Your task to perform on an android device: Go to Google Image 0: 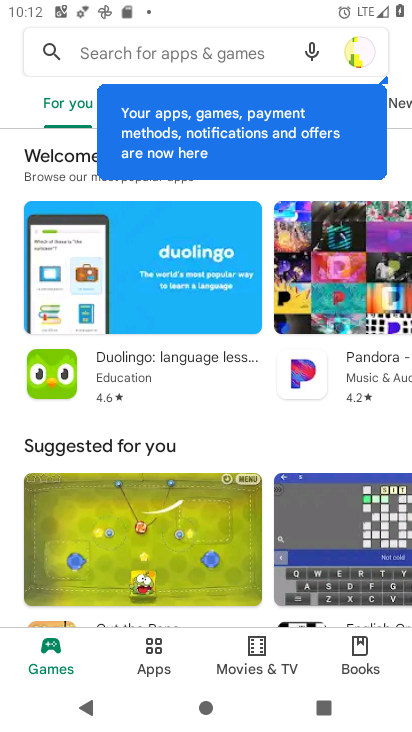
Step 0: press home button
Your task to perform on an android device: Go to Google Image 1: 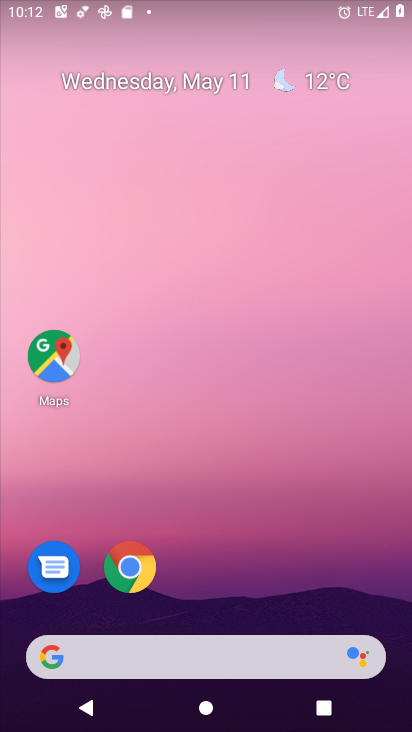
Step 1: drag from (214, 549) to (187, 102)
Your task to perform on an android device: Go to Google Image 2: 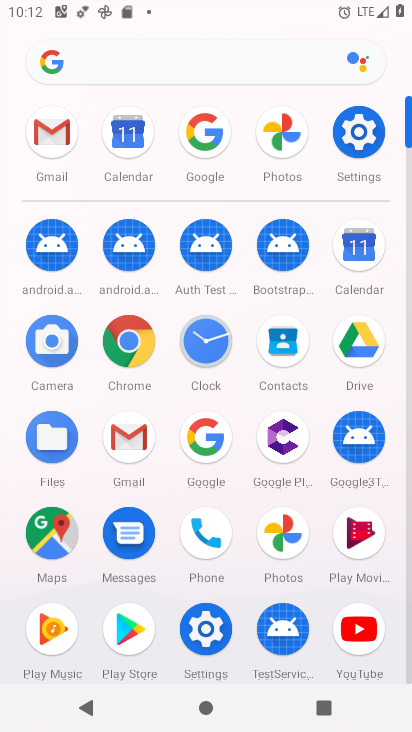
Step 2: click (203, 447)
Your task to perform on an android device: Go to Google Image 3: 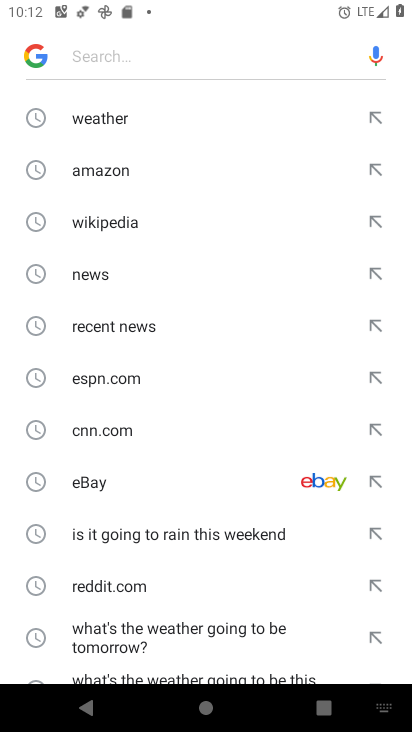
Step 3: task complete